Your task to perform on an android device: Go to Yahoo.com Image 0: 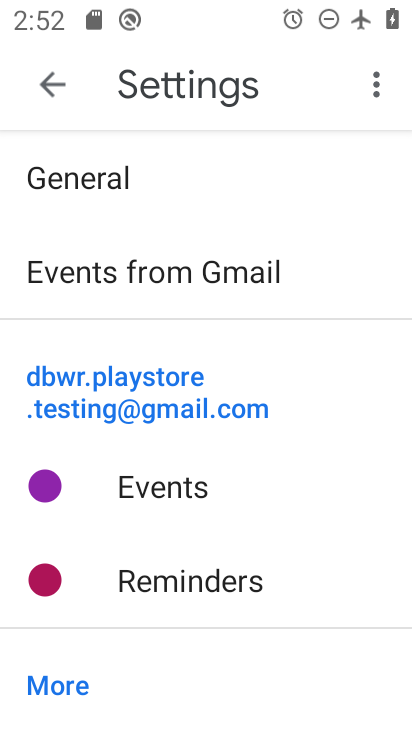
Step 0: press home button
Your task to perform on an android device: Go to Yahoo.com Image 1: 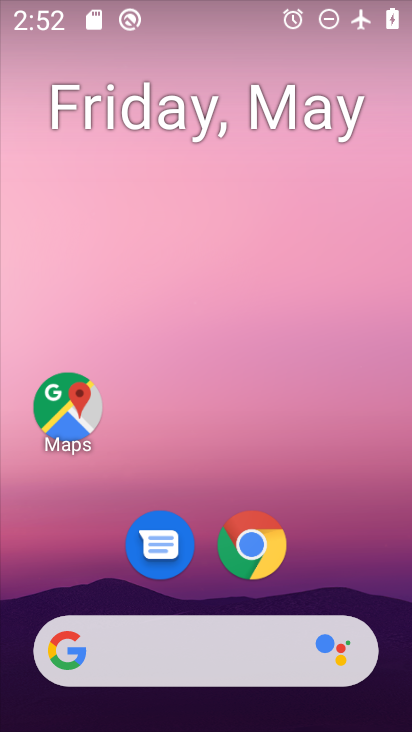
Step 1: click (250, 540)
Your task to perform on an android device: Go to Yahoo.com Image 2: 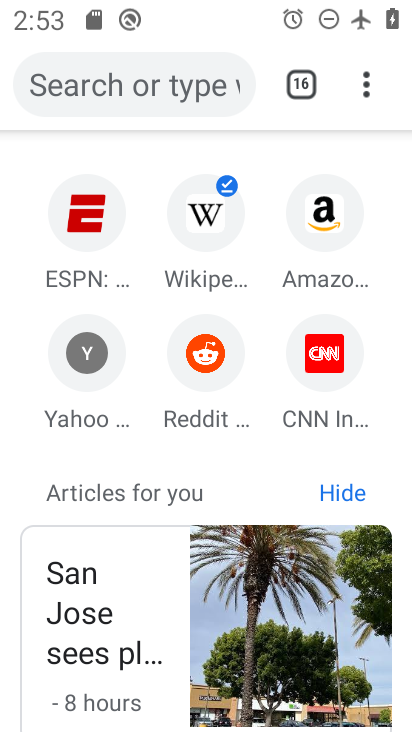
Step 2: click (81, 349)
Your task to perform on an android device: Go to Yahoo.com Image 3: 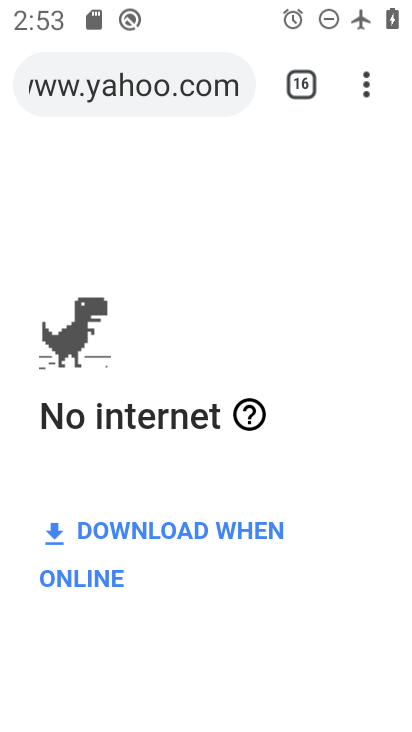
Step 3: task complete